Your task to perform on an android device: open device folders in google photos Image 0: 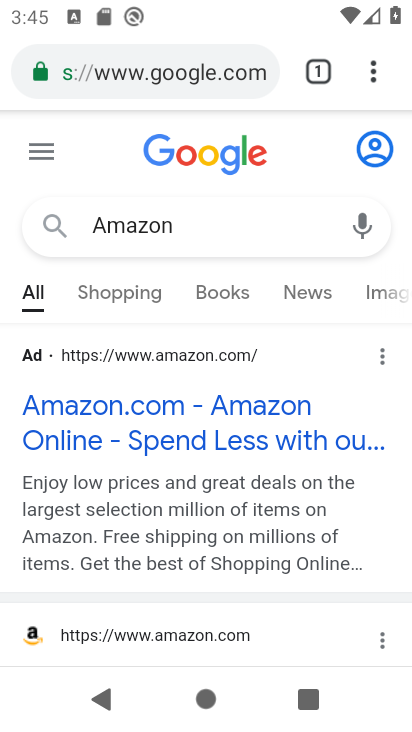
Step 0: press home button
Your task to perform on an android device: open device folders in google photos Image 1: 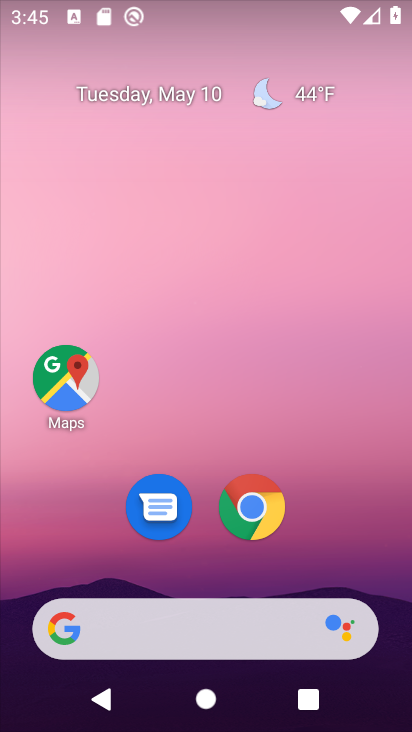
Step 1: drag from (190, 461) to (229, 194)
Your task to perform on an android device: open device folders in google photos Image 2: 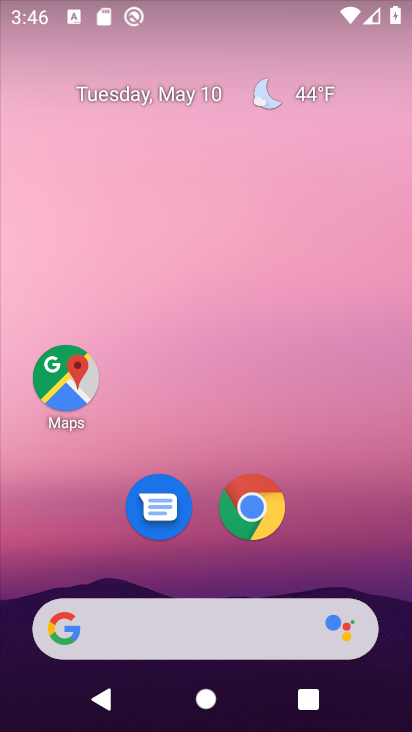
Step 2: drag from (271, 208) to (289, 94)
Your task to perform on an android device: open device folders in google photos Image 3: 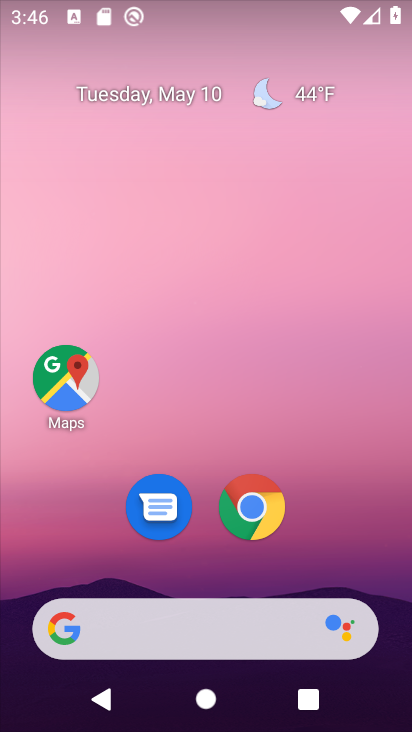
Step 3: drag from (216, 388) to (273, 204)
Your task to perform on an android device: open device folders in google photos Image 4: 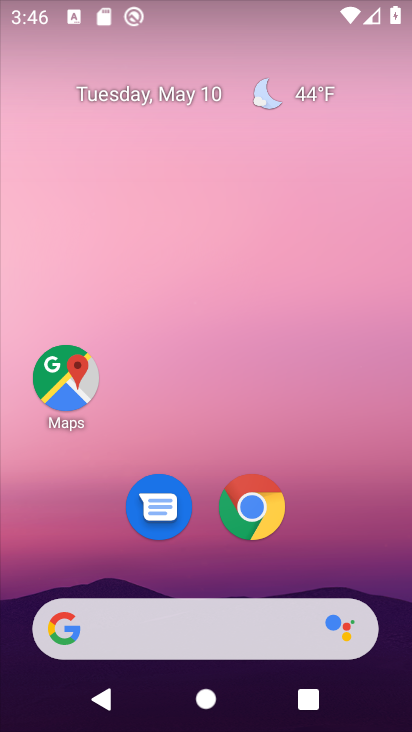
Step 4: drag from (223, 491) to (325, 200)
Your task to perform on an android device: open device folders in google photos Image 5: 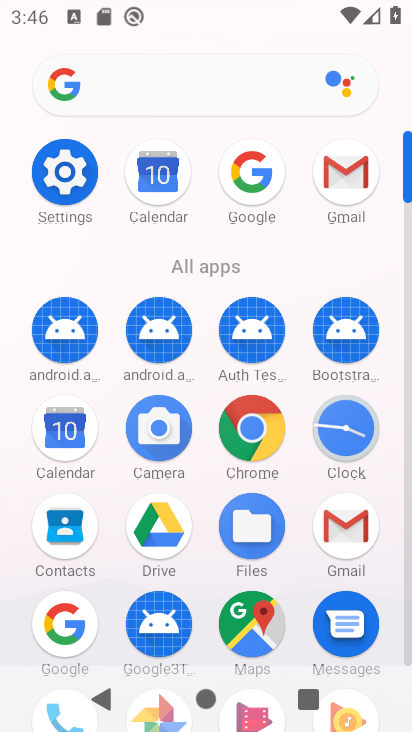
Step 5: click (140, 701)
Your task to perform on an android device: open device folders in google photos Image 6: 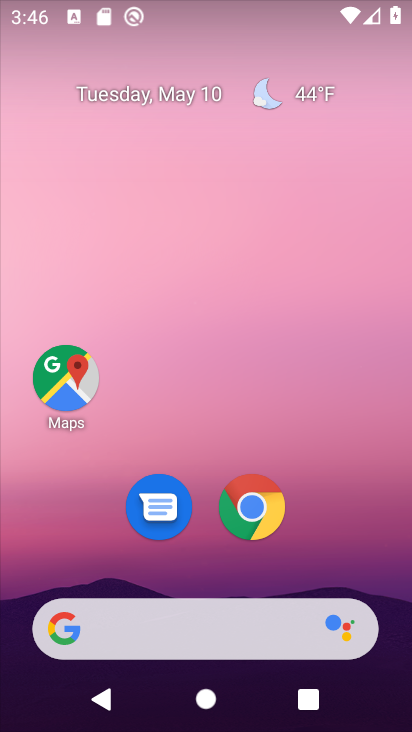
Step 6: drag from (183, 586) to (264, 189)
Your task to perform on an android device: open device folders in google photos Image 7: 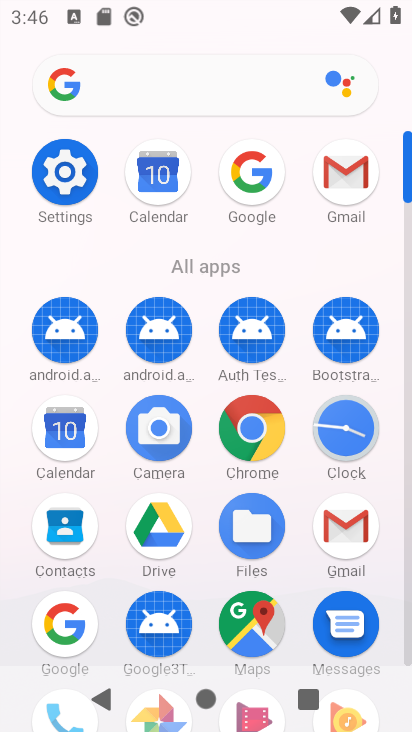
Step 7: drag from (200, 636) to (225, 458)
Your task to perform on an android device: open device folders in google photos Image 8: 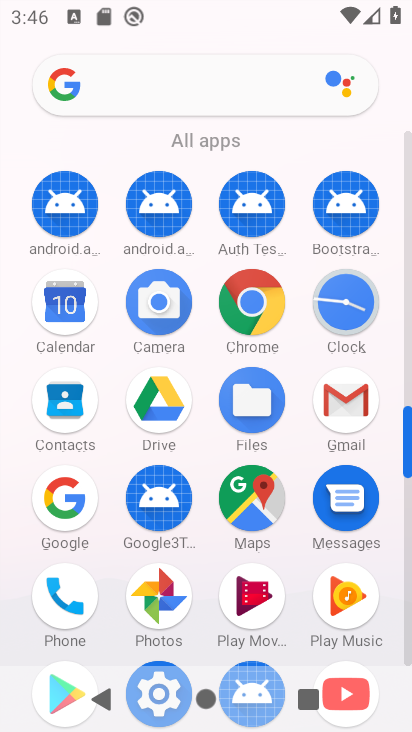
Step 8: click (151, 592)
Your task to perform on an android device: open device folders in google photos Image 9: 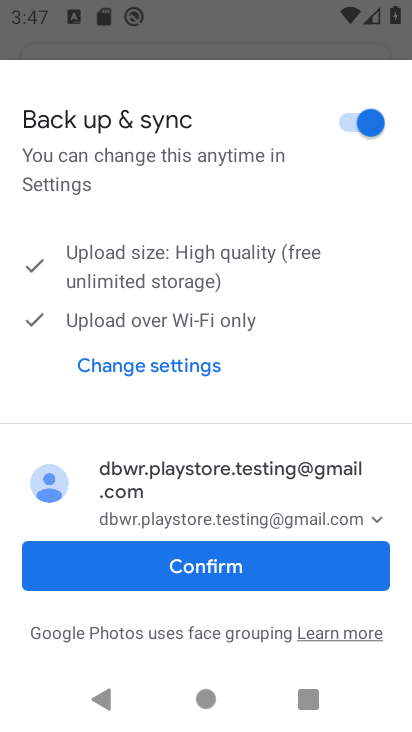
Step 9: click (271, 567)
Your task to perform on an android device: open device folders in google photos Image 10: 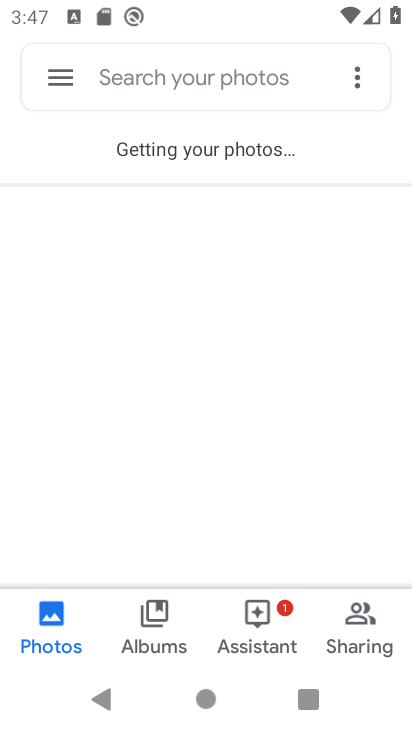
Step 10: click (72, 81)
Your task to perform on an android device: open device folders in google photos Image 11: 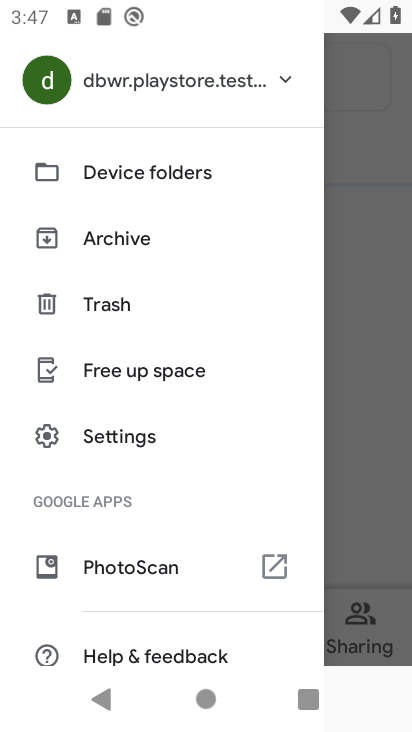
Step 11: click (116, 185)
Your task to perform on an android device: open device folders in google photos Image 12: 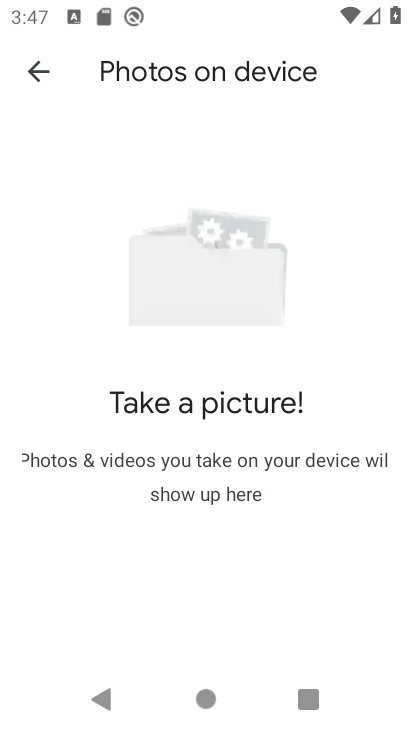
Step 12: task complete